Your task to perform on an android device: turn off notifications in google photos Image 0: 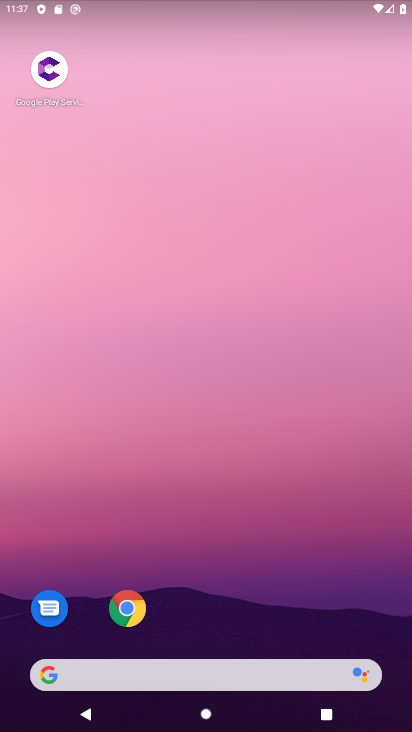
Step 0: drag from (208, 655) to (159, 4)
Your task to perform on an android device: turn off notifications in google photos Image 1: 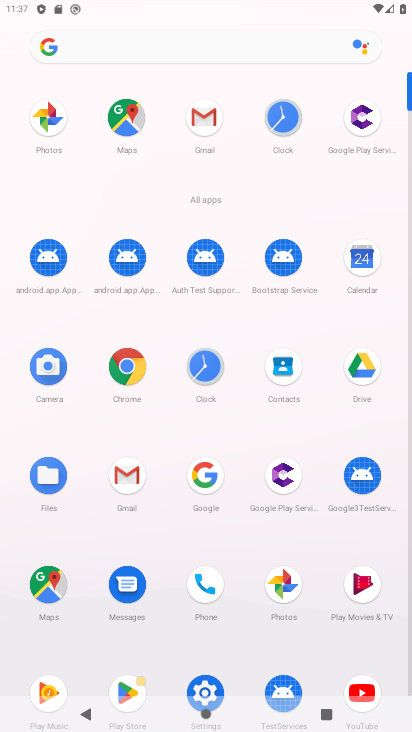
Step 1: click (281, 584)
Your task to perform on an android device: turn off notifications in google photos Image 2: 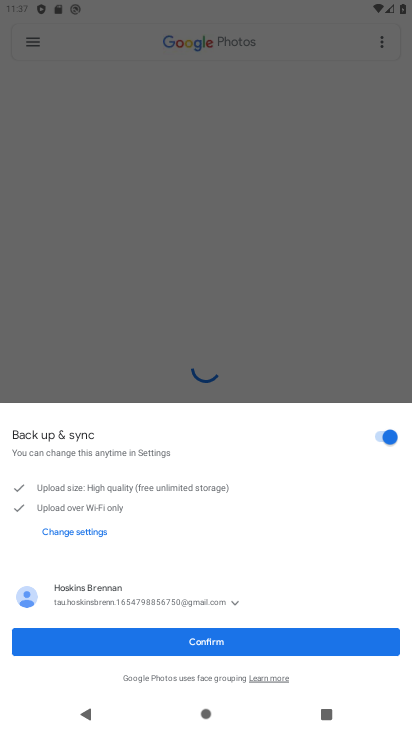
Step 2: click (195, 655)
Your task to perform on an android device: turn off notifications in google photos Image 3: 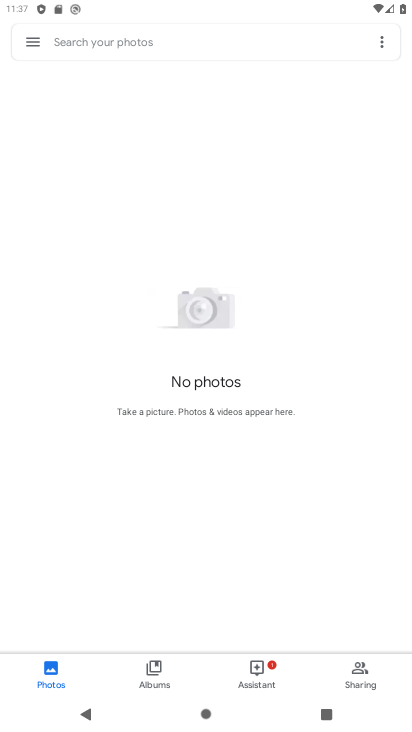
Step 3: click (34, 43)
Your task to perform on an android device: turn off notifications in google photos Image 4: 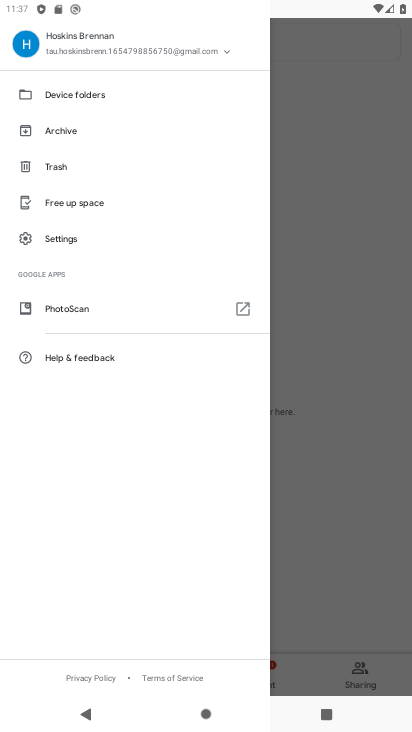
Step 4: click (57, 235)
Your task to perform on an android device: turn off notifications in google photos Image 5: 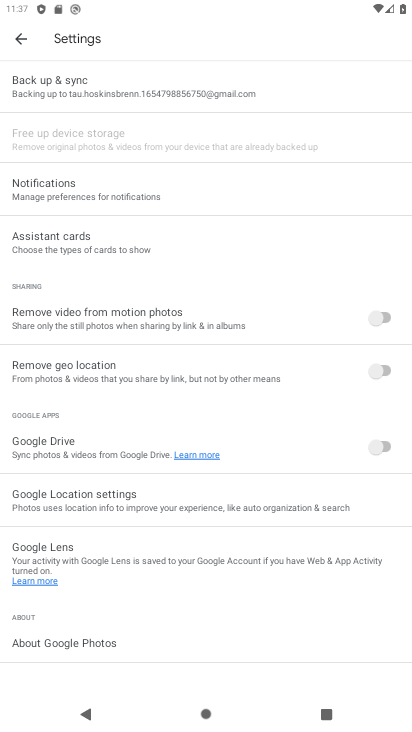
Step 5: click (61, 197)
Your task to perform on an android device: turn off notifications in google photos Image 6: 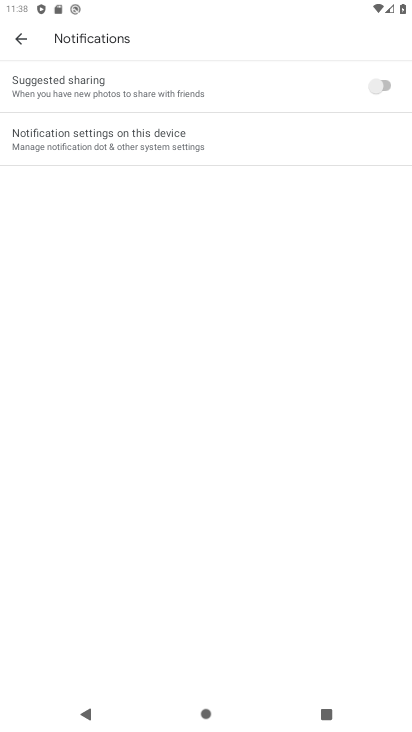
Step 6: click (168, 133)
Your task to perform on an android device: turn off notifications in google photos Image 7: 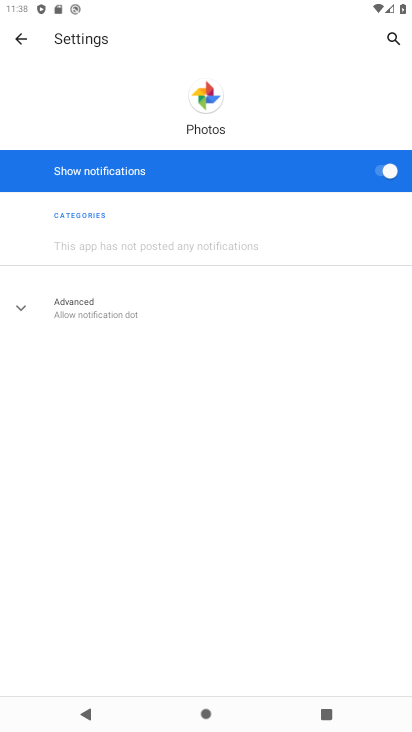
Step 7: click (379, 175)
Your task to perform on an android device: turn off notifications in google photos Image 8: 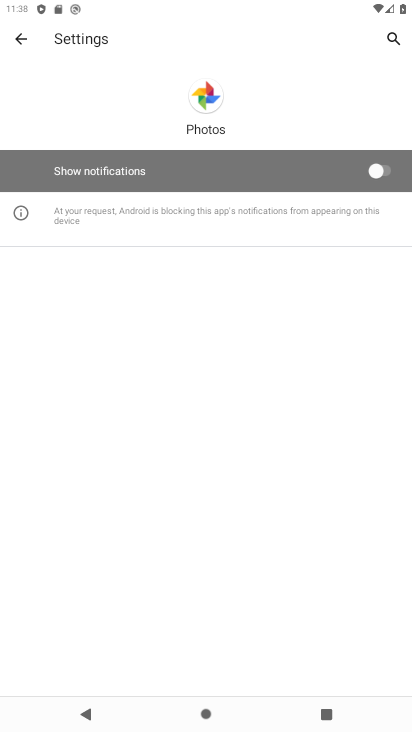
Step 8: task complete